Your task to perform on an android device: delete location history Image 0: 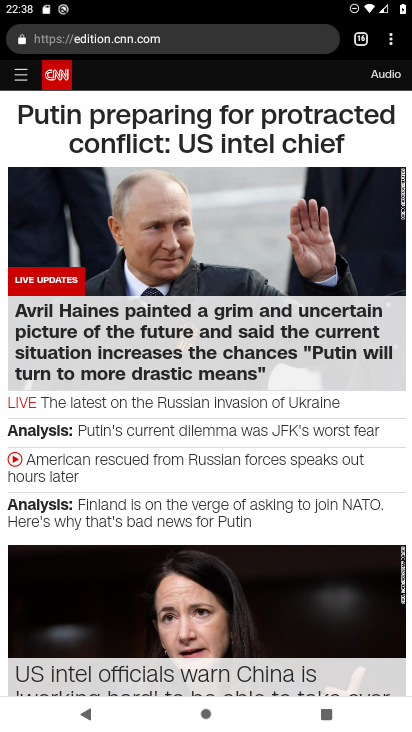
Step 0: press home button
Your task to perform on an android device: delete location history Image 1: 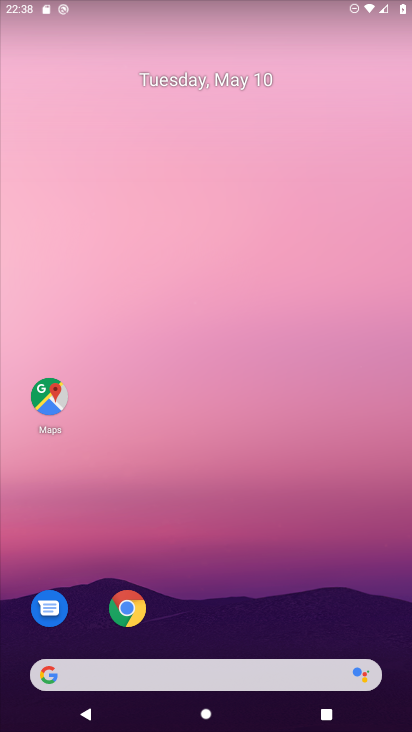
Step 1: click (232, 616)
Your task to perform on an android device: delete location history Image 2: 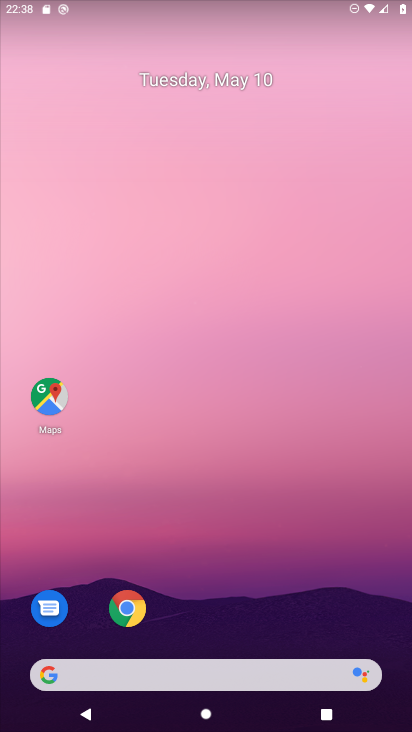
Step 2: click (40, 398)
Your task to perform on an android device: delete location history Image 3: 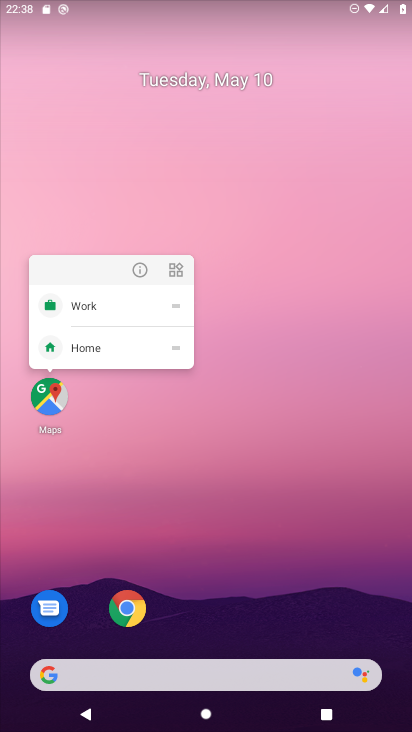
Step 3: click (52, 399)
Your task to perform on an android device: delete location history Image 4: 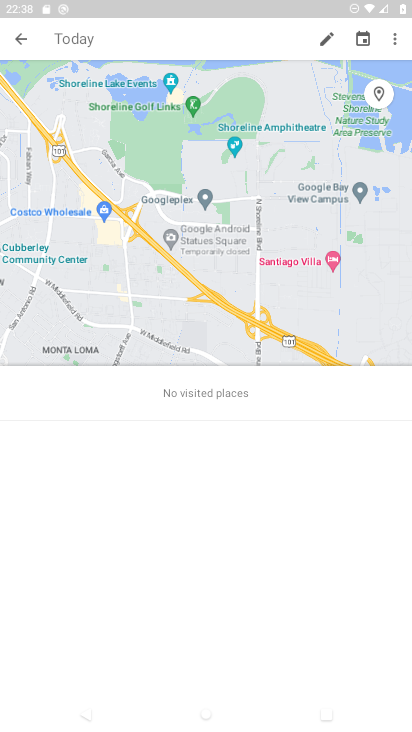
Step 4: click (389, 35)
Your task to perform on an android device: delete location history Image 5: 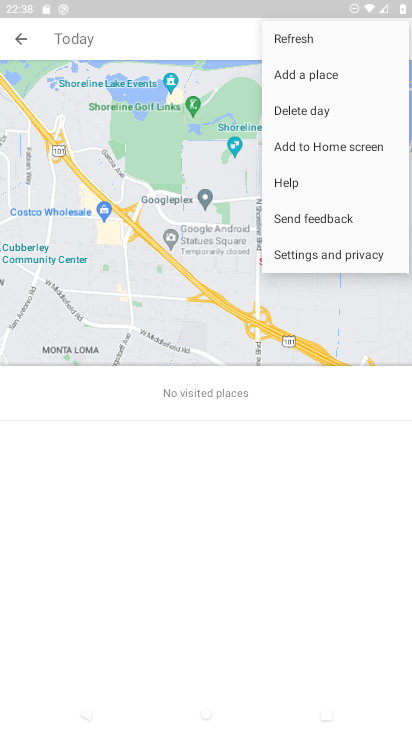
Step 5: click (317, 253)
Your task to perform on an android device: delete location history Image 6: 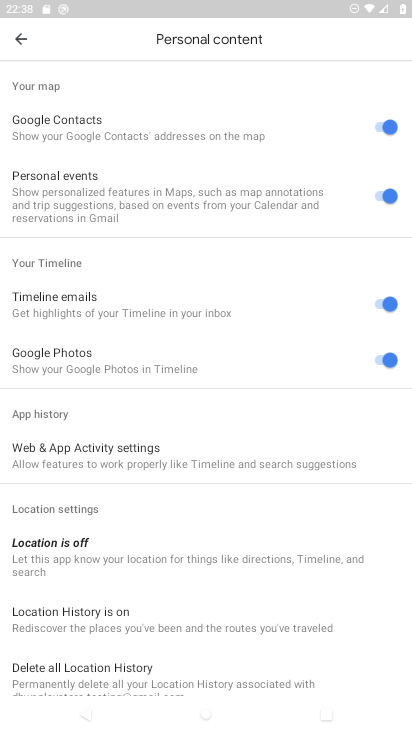
Step 6: click (122, 668)
Your task to perform on an android device: delete location history Image 7: 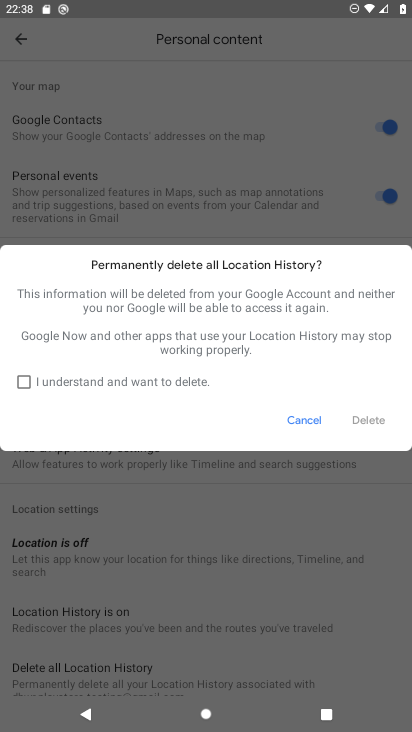
Step 7: click (31, 377)
Your task to perform on an android device: delete location history Image 8: 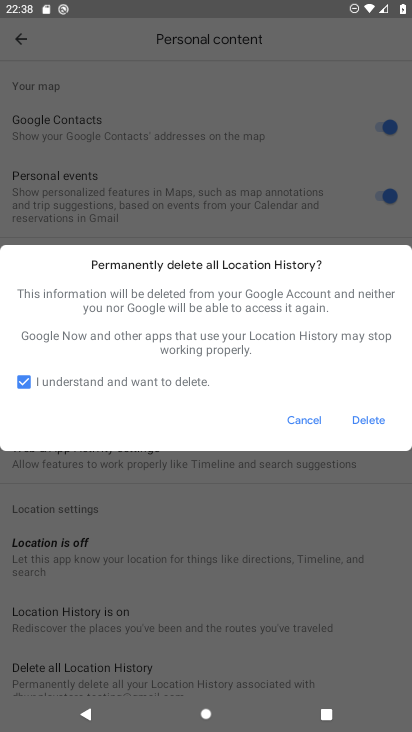
Step 8: click (364, 422)
Your task to perform on an android device: delete location history Image 9: 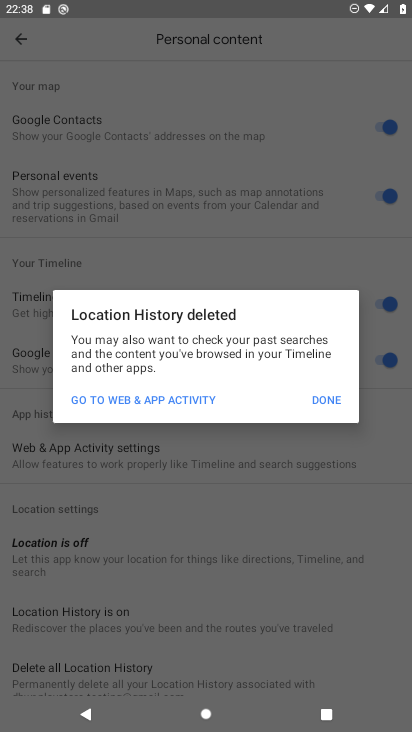
Step 9: click (314, 399)
Your task to perform on an android device: delete location history Image 10: 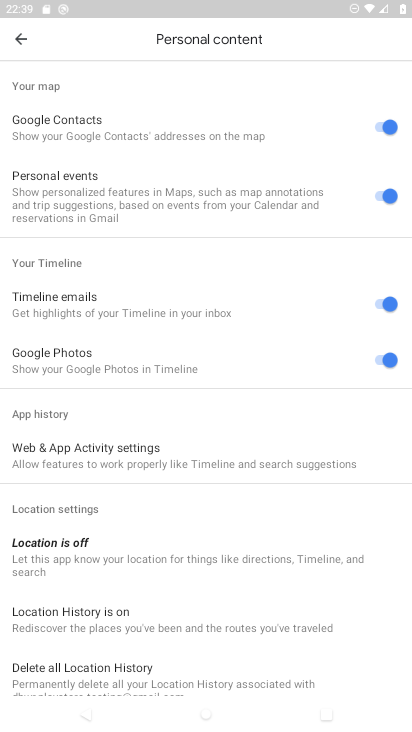
Step 10: task complete